Your task to perform on an android device: Open Google Maps and go to "Timeline" Image 0: 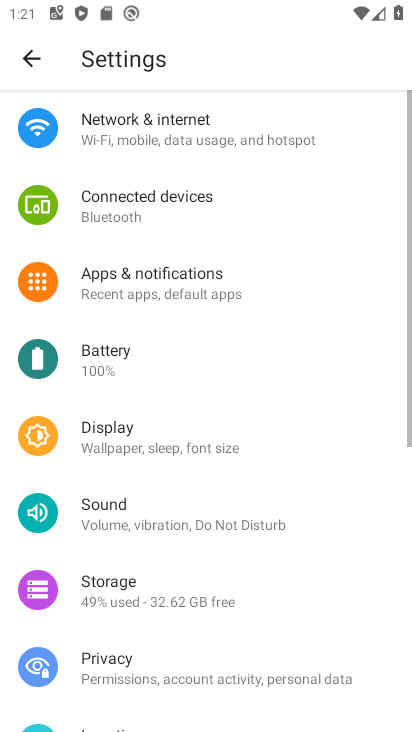
Step 0: press home button
Your task to perform on an android device: Open Google Maps and go to "Timeline" Image 1: 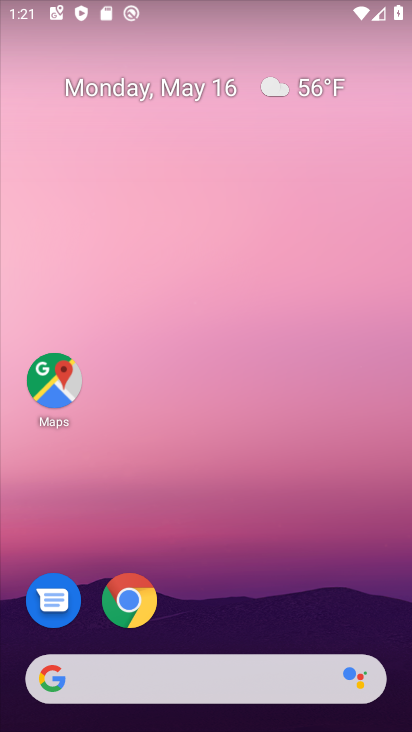
Step 1: click (78, 389)
Your task to perform on an android device: Open Google Maps and go to "Timeline" Image 2: 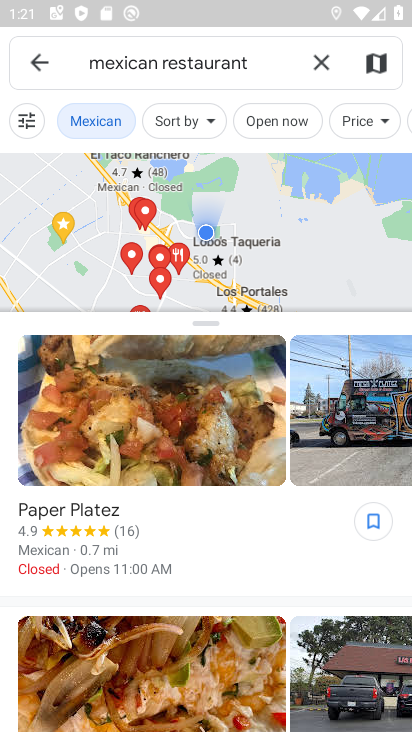
Step 2: click (43, 64)
Your task to perform on an android device: Open Google Maps and go to "Timeline" Image 3: 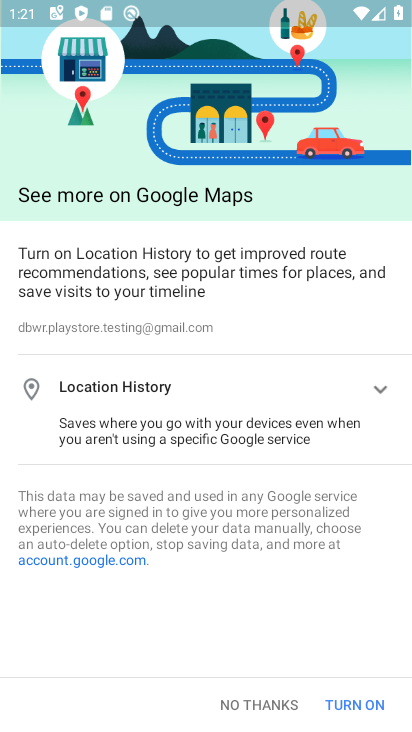
Step 3: click (263, 707)
Your task to perform on an android device: Open Google Maps and go to "Timeline" Image 4: 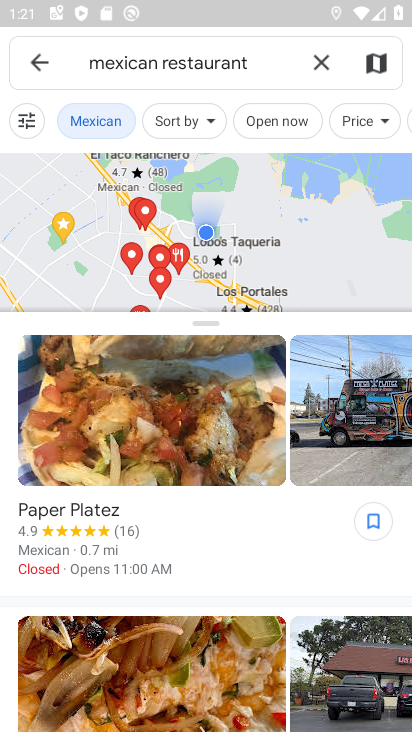
Step 4: click (36, 70)
Your task to perform on an android device: Open Google Maps and go to "Timeline" Image 5: 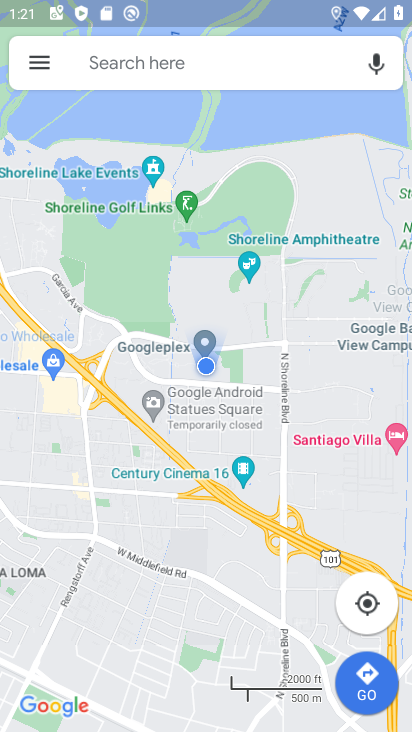
Step 5: click (37, 61)
Your task to perform on an android device: Open Google Maps and go to "Timeline" Image 6: 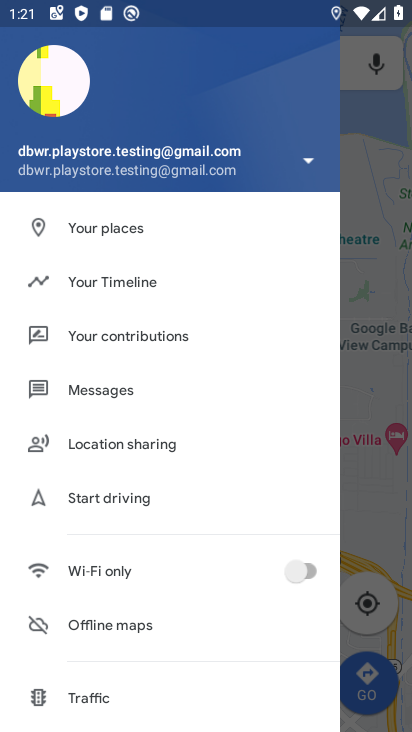
Step 6: click (129, 282)
Your task to perform on an android device: Open Google Maps and go to "Timeline" Image 7: 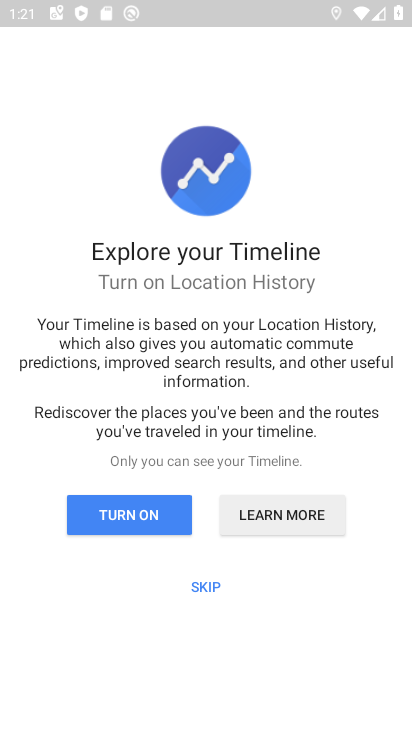
Step 7: click (196, 587)
Your task to perform on an android device: Open Google Maps and go to "Timeline" Image 8: 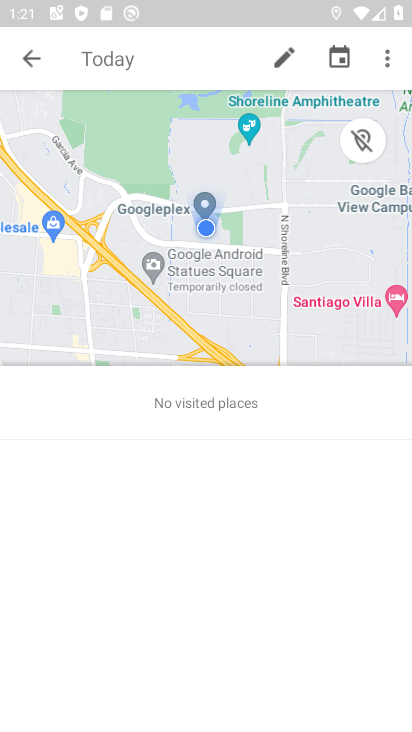
Step 8: task complete